Your task to perform on an android device: read, delete, or share a saved page in the chrome app Image 0: 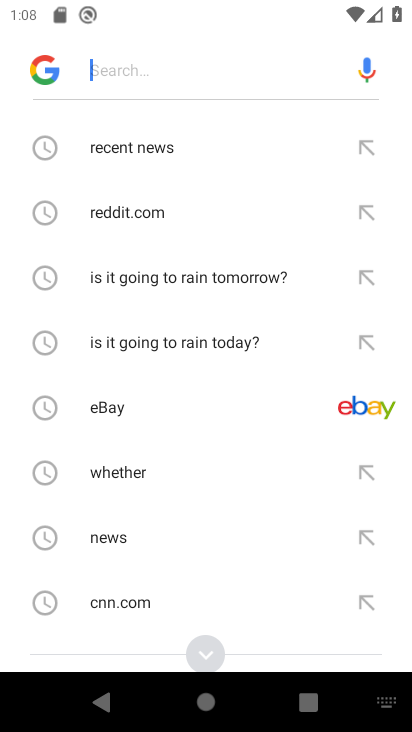
Step 0: press home button
Your task to perform on an android device: read, delete, or share a saved page in the chrome app Image 1: 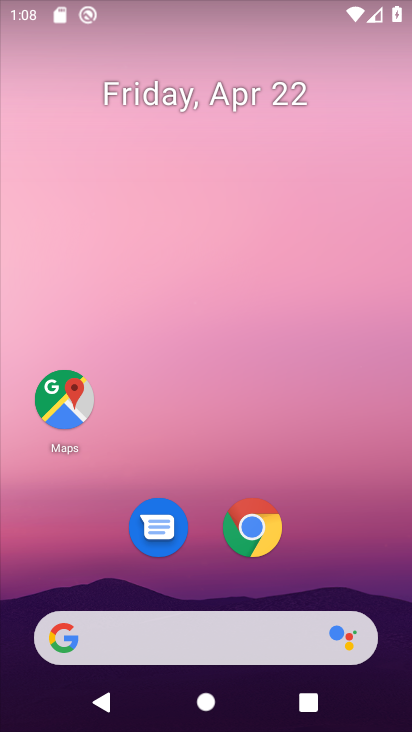
Step 1: click (289, 529)
Your task to perform on an android device: read, delete, or share a saved page in the chrome app Image 2: 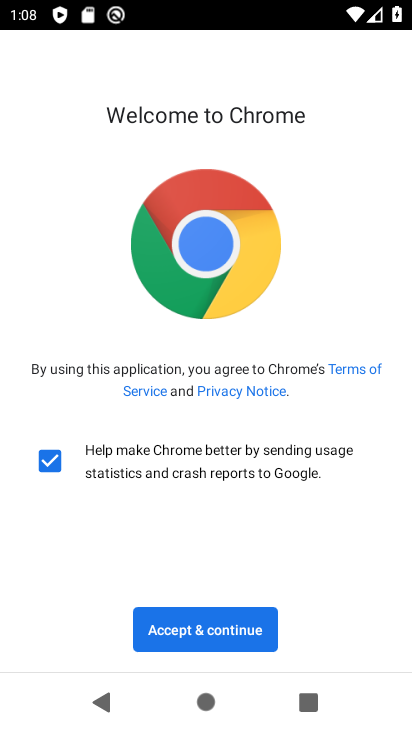
Step 2: click (385, 80)
Your task to perform on an android device: read, delete, or share a saved page in the chrome app Image 3: 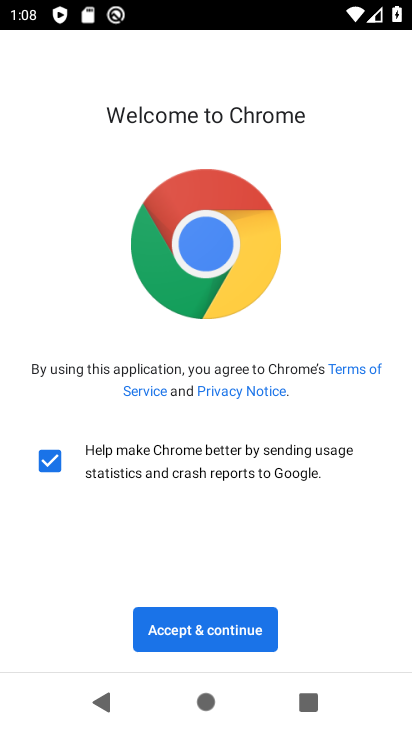
Step 3: click (198, 641)
Your task to perform on an android device: read, delete, or share a saved page in the chrome app Image 4: 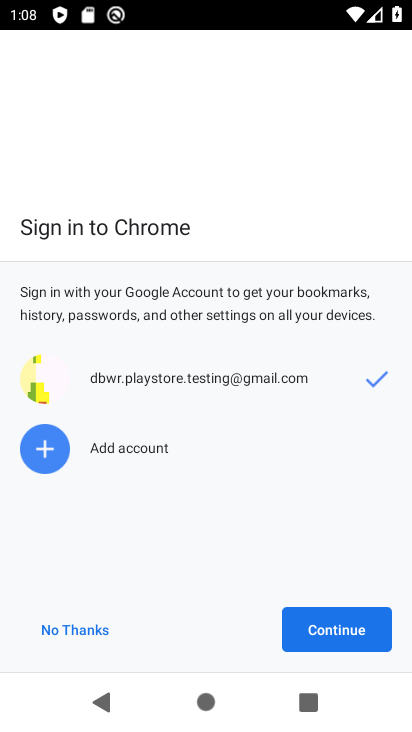
Step 4: click (373, 645)
Your task to perform on an android device: read, delete, or share a saved page in the chrome app Image 5: 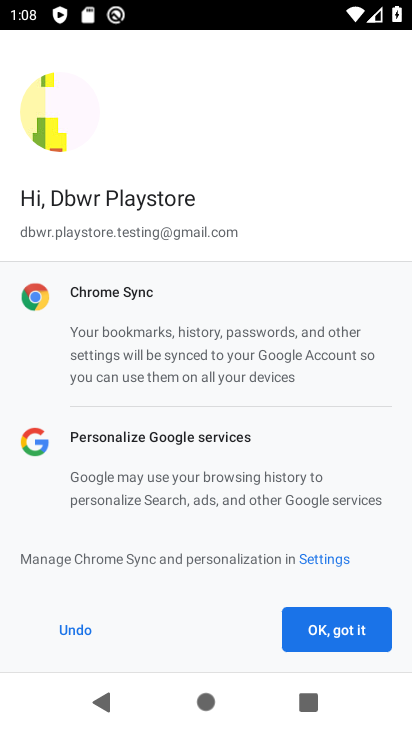
Step 5: click (373, 645)
Your task to perform on an android device: read, delete, or share a saved page in the chrome app Image 6: 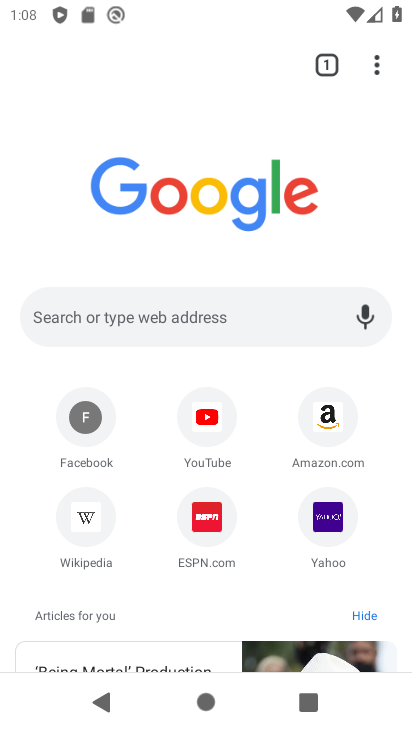
Step 6: click (378, 67)
Your task to perform on an android device: read, delete, or share a saved page in the chrome app Image 7: 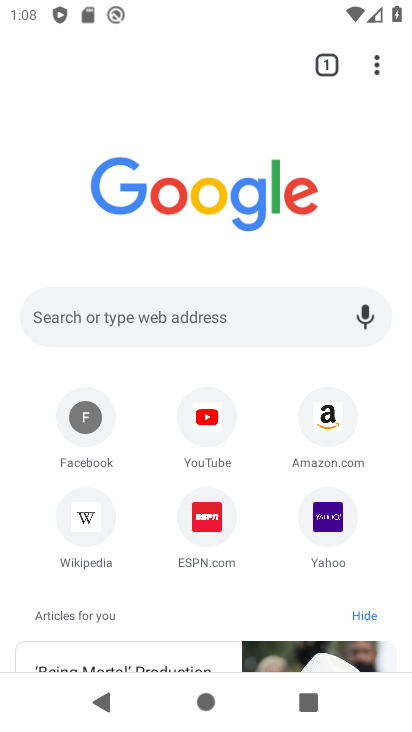
Step 7: click (372, 80)
Your task to perform on an android device: read, delete, or share a saved page in the chrome app Image 8: 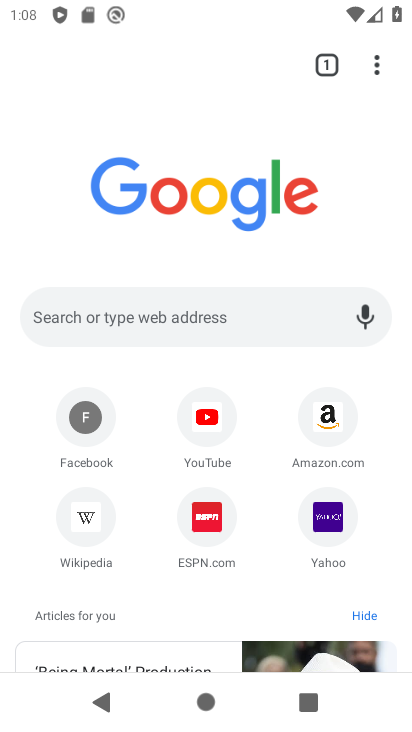
Step 8: click (370, 67)
Your task to perform on an android device: read, delete, or share a saved page in the chrome app Image 9: 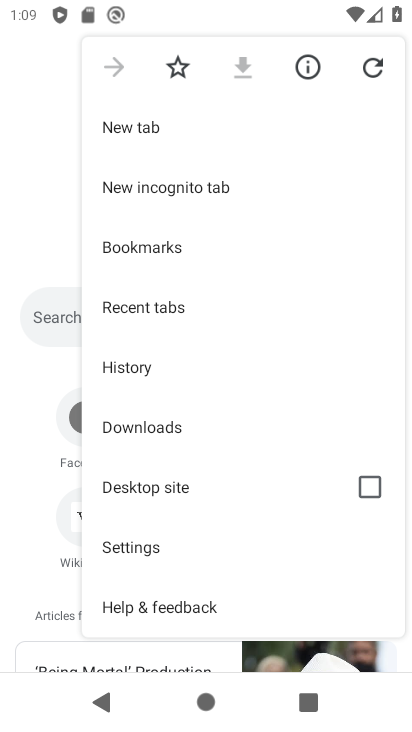
Step 9: click (197, 427)
Your task to perform on an android device: read, delete, or share a saved page in the chrome app Image 10: 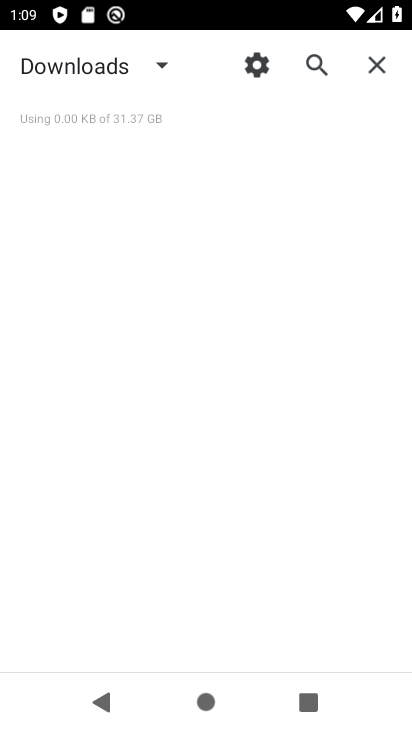
Step 10: task complete